Your task to perform on an android device: Open Youtube and go to "Your channel" Image 0: 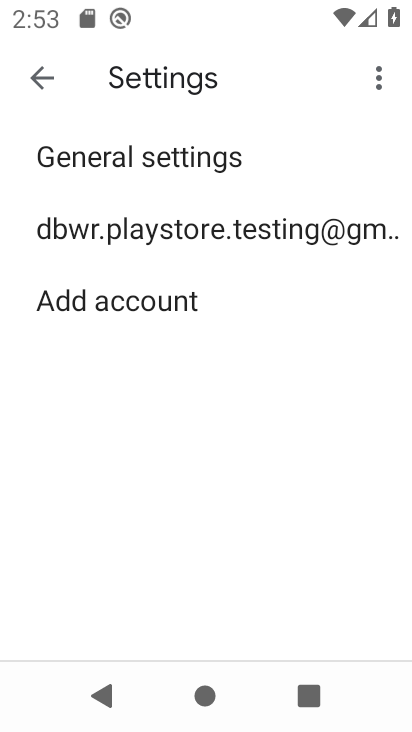
Step 0: press home button
Your task to perform on an android device: Open Youtube and go to "Your channel" Image 1: 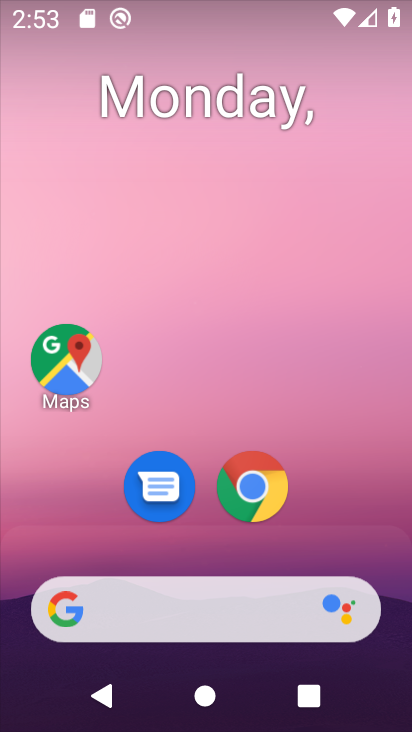
Step 1: drag from (201, 552) to (163, 0)
Your task to perform on an android device: Open Youtube and go to "Your channel" Image 2: 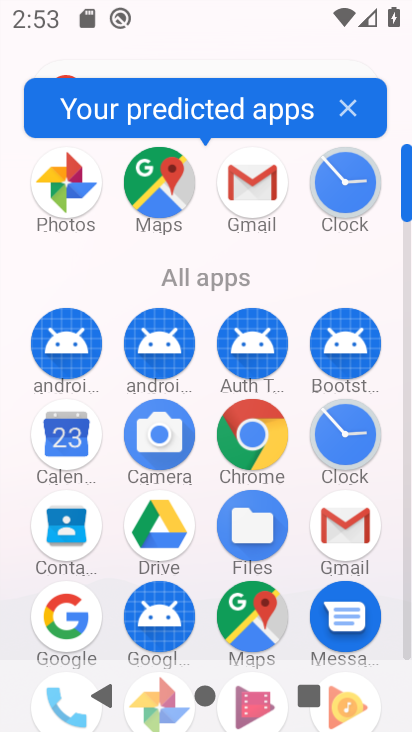
Step 2: drag from (215, 582) to (264, 1)
Your task to perform on an android device: Open Youtube and go to "Your channel" Image 3: 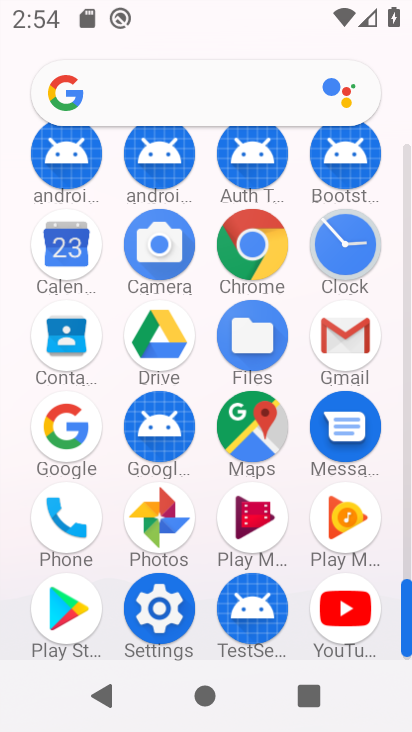
Step 3: click (357, 628)
Your task to perform on an android device: Open Youtube and go to "Your channel" Image 4: 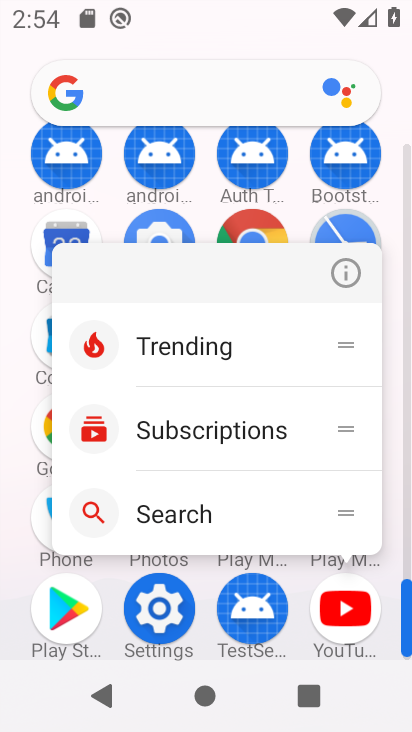
Step 4: click (346, 609)
Your task to perform on an android device: Open Youtube and go to "Your channel" Image 5: 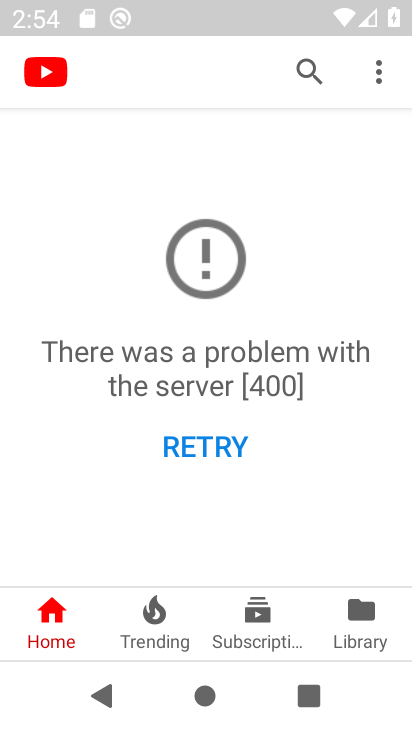
Step 5: click (213, 443)
Your task to perform on an android device: Open Youtube and go to "Your channel" Image 6: 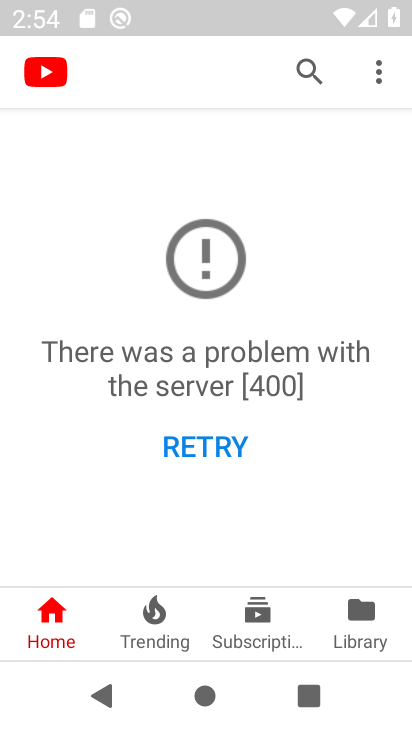
Step 6: click (216, 455)
Your task to perform on an android device: Open Youtube and go to "Your channel" Image 7: 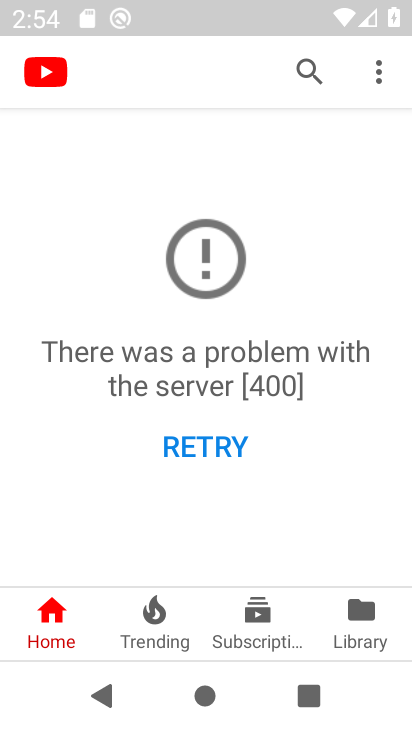
Step 7: click (216, 455)
Your task to perform on an android device: Open Youtube and go to "Your channel" Image 8: 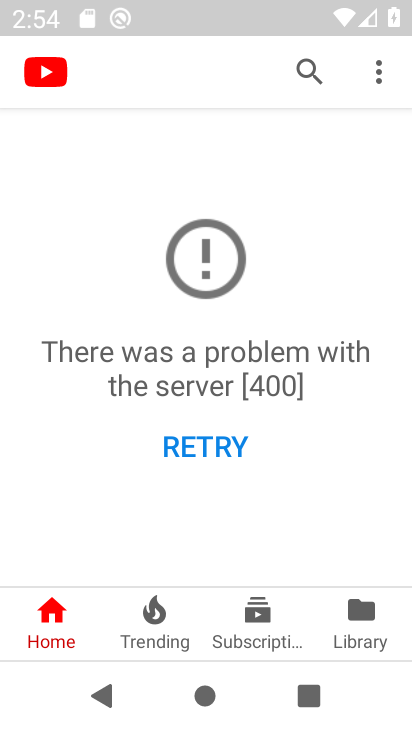
Step 8: click (216, 455)
Your task to perform on an android device: Open Youtube and go to "Your channel" Image 9: 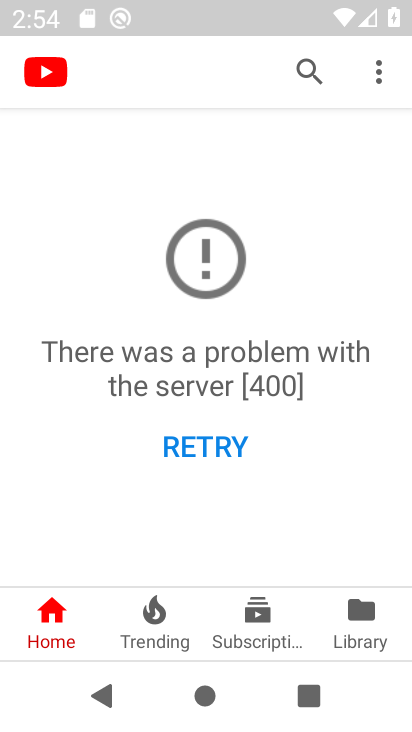
Step 9: click (216, 455)
Your task to perform on an android device: Open Youtube and go to "Your channel" Image 10: 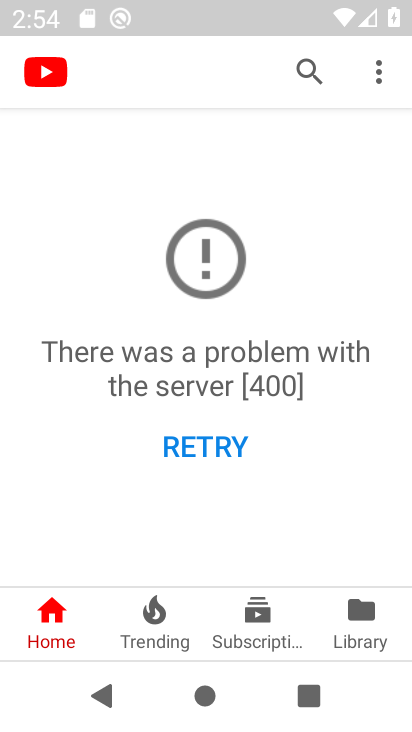
Step 10: click (216, 455)
Your task to perform on an android device: Open Youtube and go to "Your channel" Image 11: 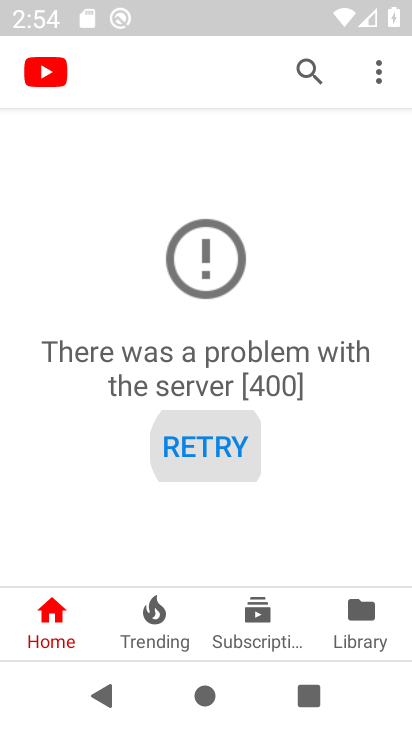
Step 11: click (216, 455)
Your task to perform on an android device: Open Youtube and go to "Your channel" Image 12: 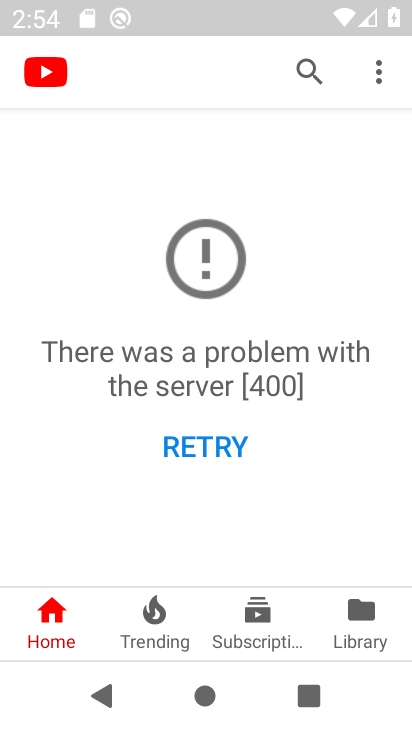
Step 12: click (216, 455)
Your task to perform on an android device: Open Youtube and go to "Your channel" Image 13: 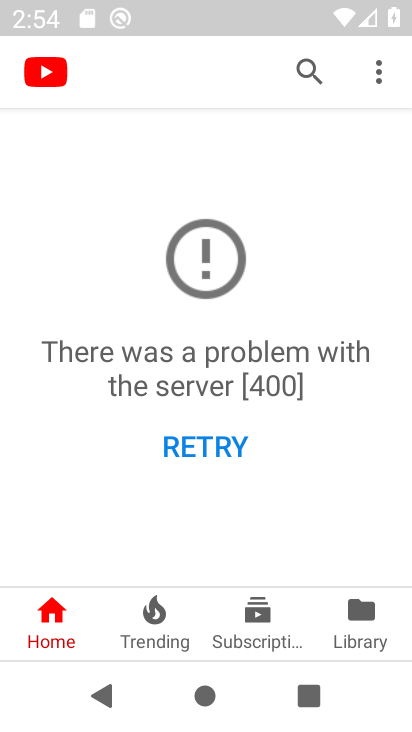
Step 13: click (216, 455)
Your task to perform on an android device: Open Youtube and go to "Your channel" Image 14: 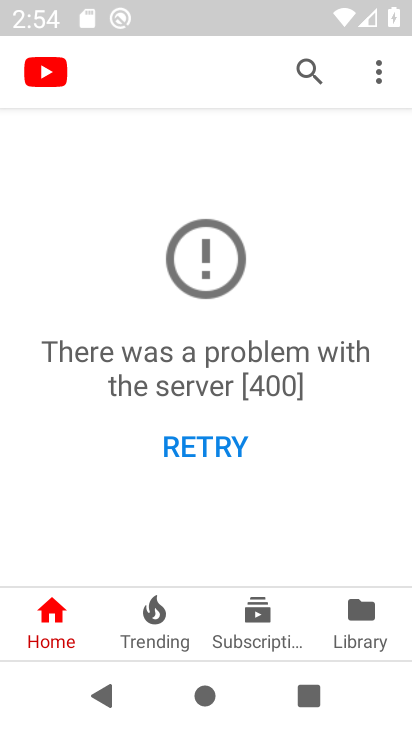
Step 14: click (216, 455)
Your task to perform on an android device: Open Youtube and go to "Your channel" Image 15: 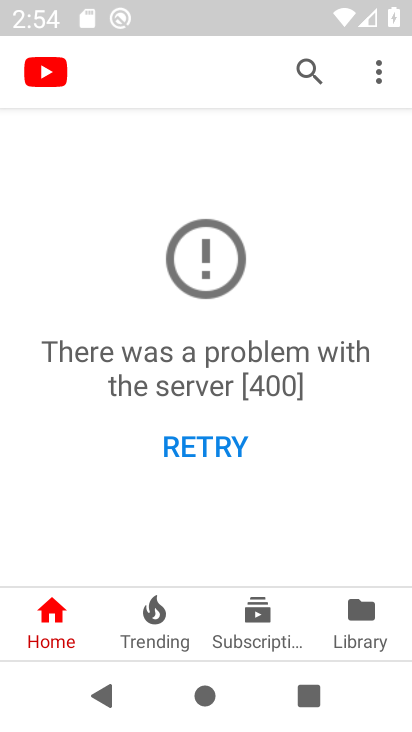
Step 15: click (216, 455)
Your task to perform on an android device: Open Youtube and go to "Your channel" Image 16: 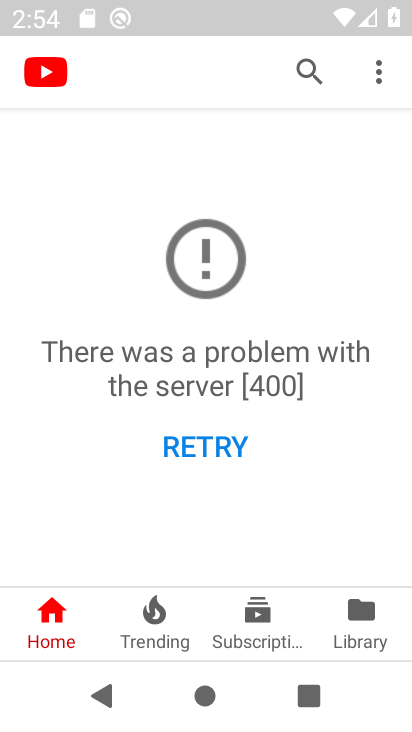
Step 16: task complete